Your task to perform on an android device: Open the Play Movies app and select the watchlist tab. Image 0: 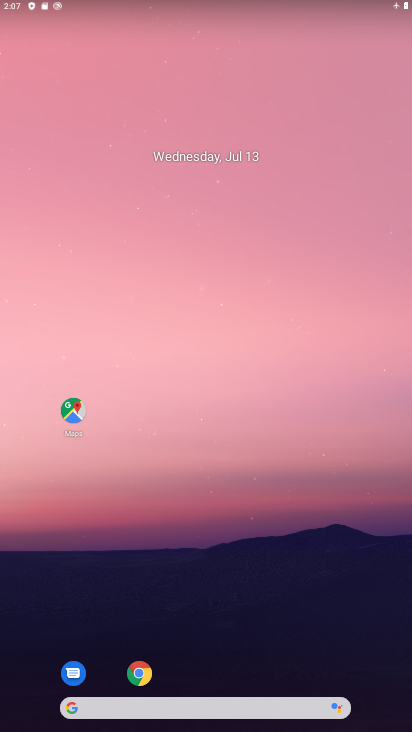
Step 0: drag from (242, 706) to (299, 163)
Your task to perform on an android device: Open the Play Movies app and select the watchlist tab. Image 1: 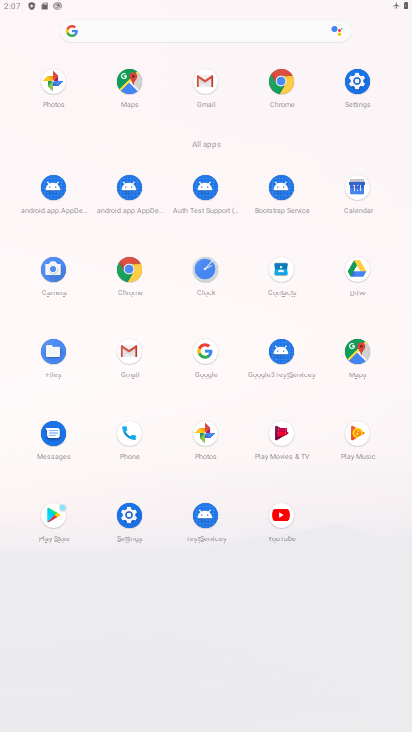
Step 1: click (282, 433)
Your task to perform on an android device: Open the Play Movies app and select the watchlist tab. Image 2: 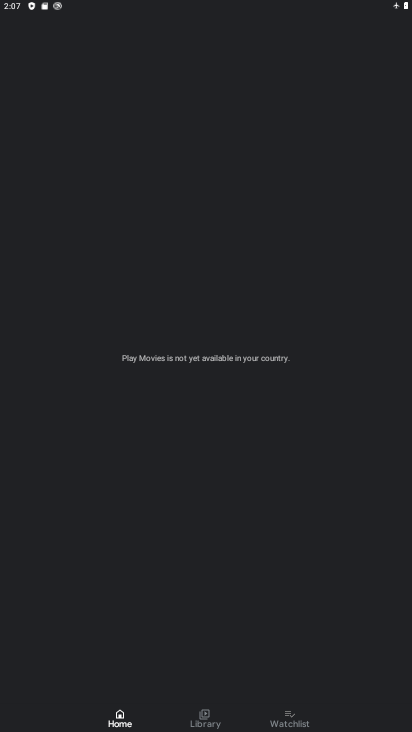
Step 2: click (290, 719)
Your task to perform on an android device: Open the Play Movies app and select the watchlist tab. Image 3: 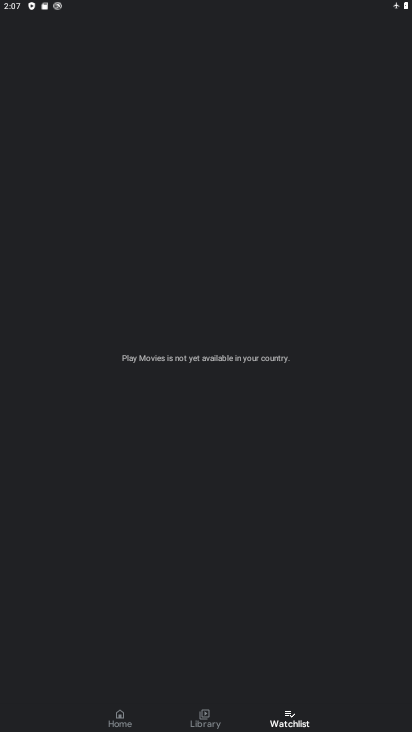
Step 3: task complete